Your task to perform on an android device: turn on javascript in the chrome app Image 0: 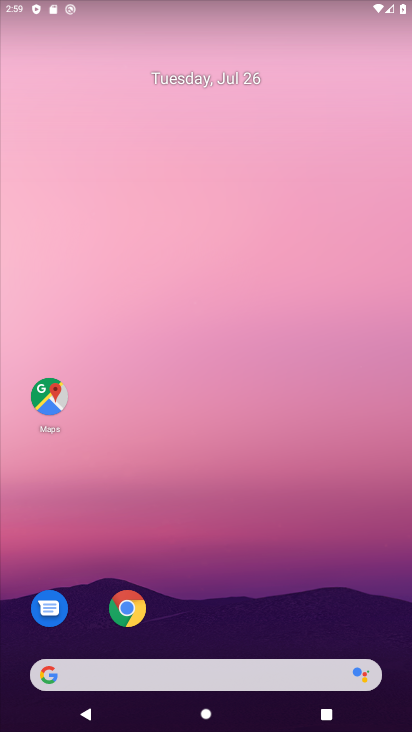
Step 0: click (132, 597)
Your task to perform on an android device: turn on javascript in the chrome app Image 1: 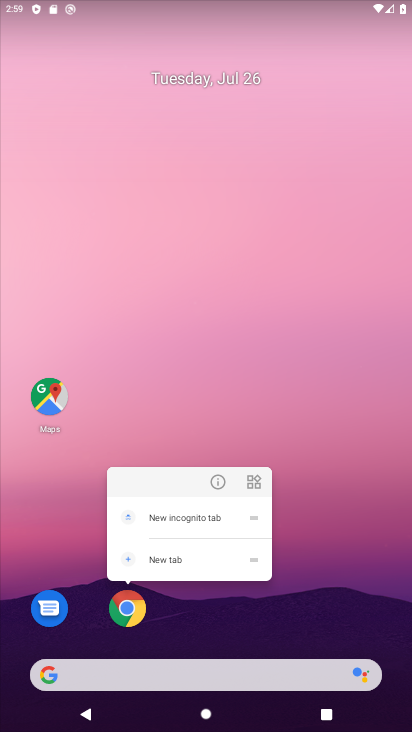
Step 1: click (133, 597)
Your task to perform on an android device: turn on javascript in the chrome app Image 2: 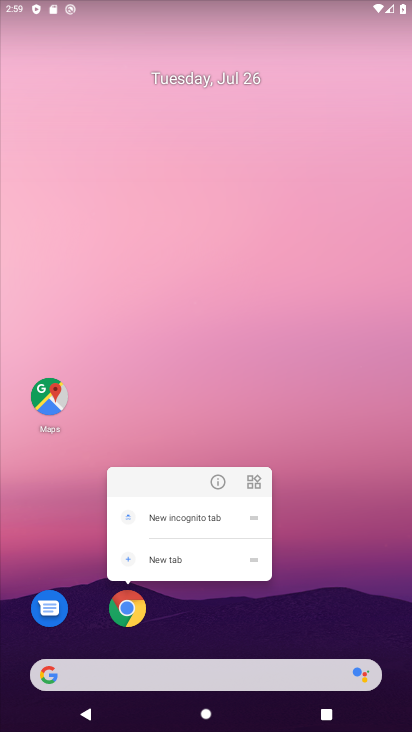
Step 2: click (133, 588)
Your task to perform on an android device: turn on javascript in the chrome app Image 3: 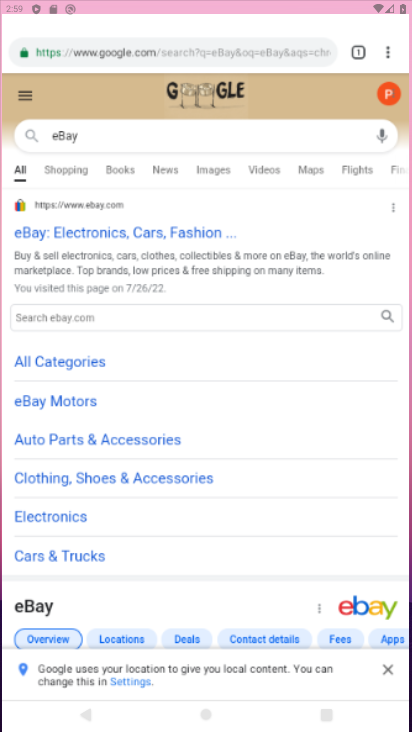
Step 3: click (129, 598)
Your task to perform on an android device: turn on javascript in the chrome app Image 4: 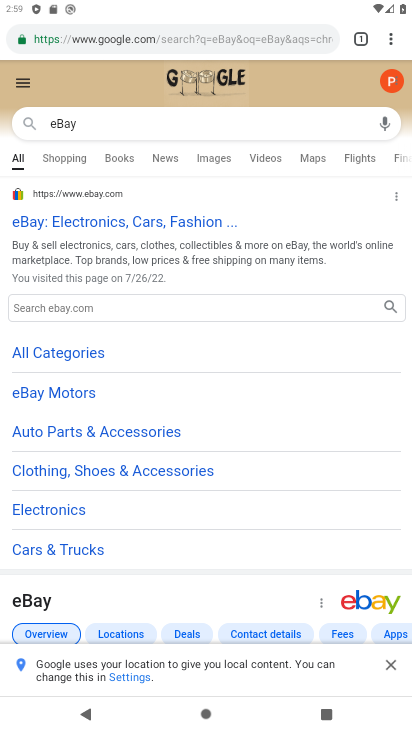
Step 4: click (385, 43)
Your task to perform on an android device: turn on javascript in the chrome app Image 5: 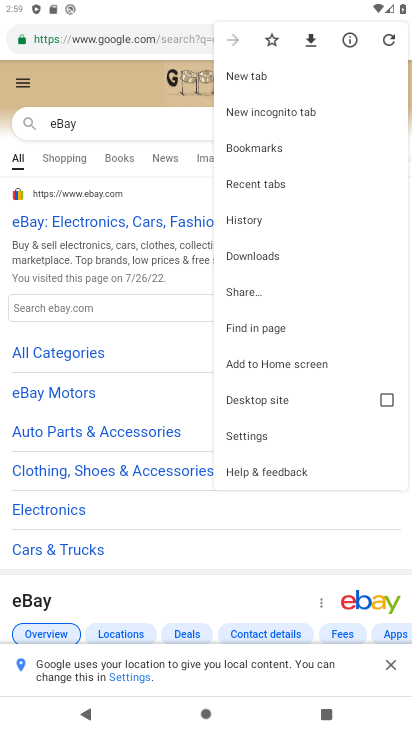
Step 5: click (255, 436)
Your task to perform on an android device: turn on javascript in the chrome app Image 6: 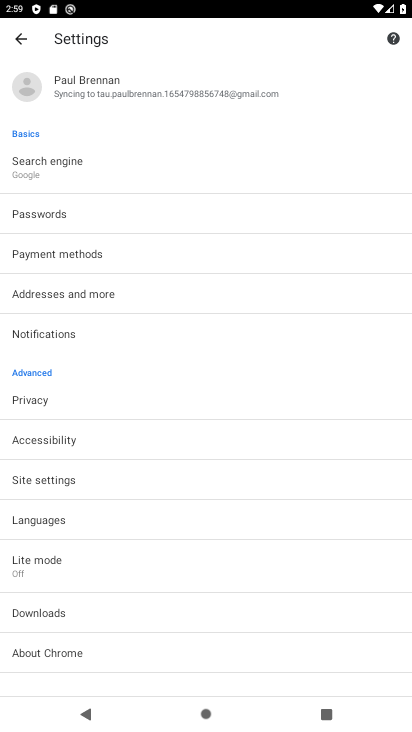
Step 6: click (70, 482)
Your task to perform on an android device: turn on javascript in the chrome app Image 7: 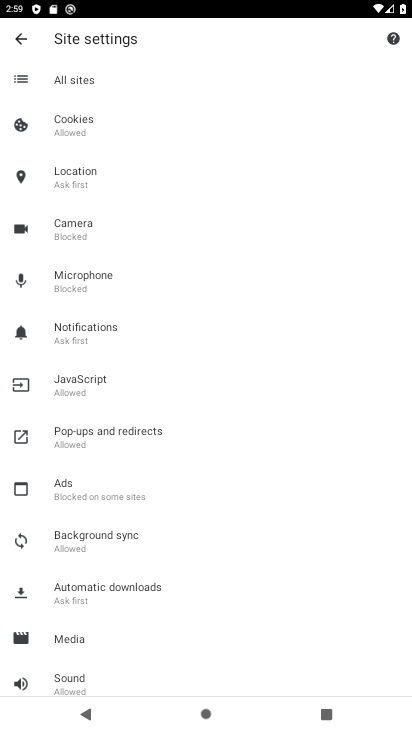
Step 7: click (102, 387)
Your task to perform on an android device: turn on javascript in the chrome app Image 8: 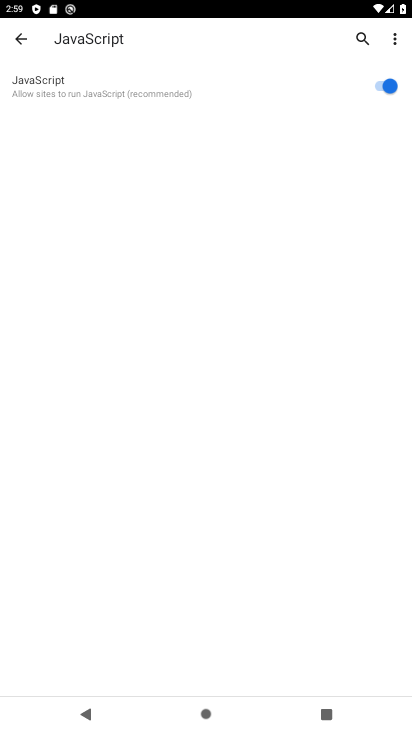
Step 8: task complete